Your task to perform on an android device: toggle notifications settings in the gmail app Image 0: 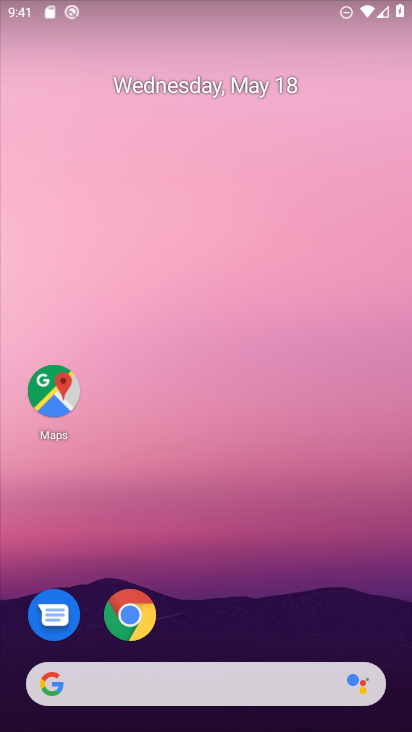
Step 0: drag from (236, 594) to (254, 88)
Your task to perform on an android device: toggle notifications settings in the gmail app Image 1: 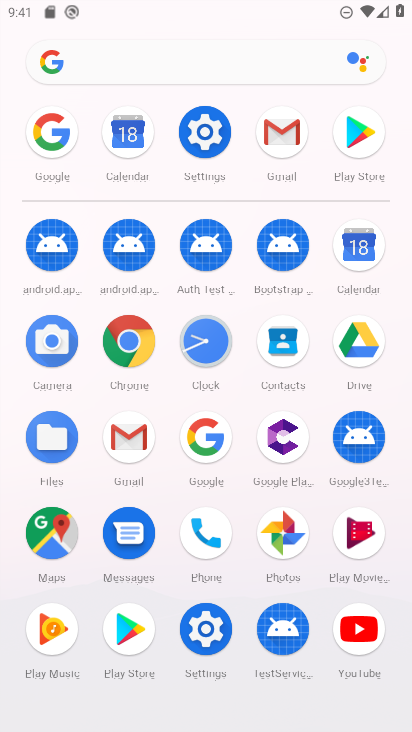
Step 1: click (287, 140)
Your task to perform on an android device: toggle notifications settings in the gmail app Image 2: 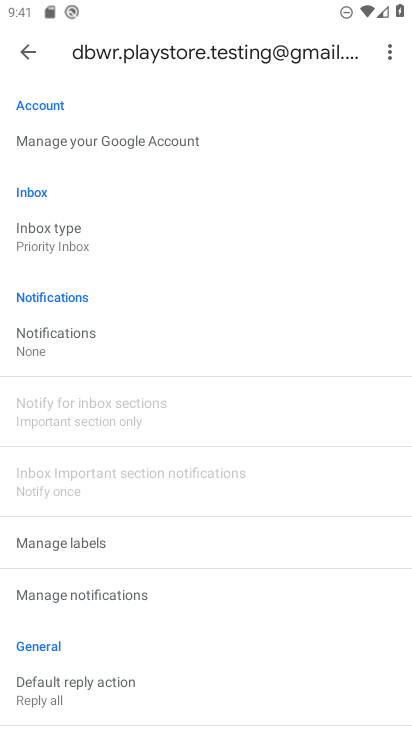
Step 2: click (83, 340)
Your task to perform on an android device: toggle notifications settings in the gmail app Image 3: 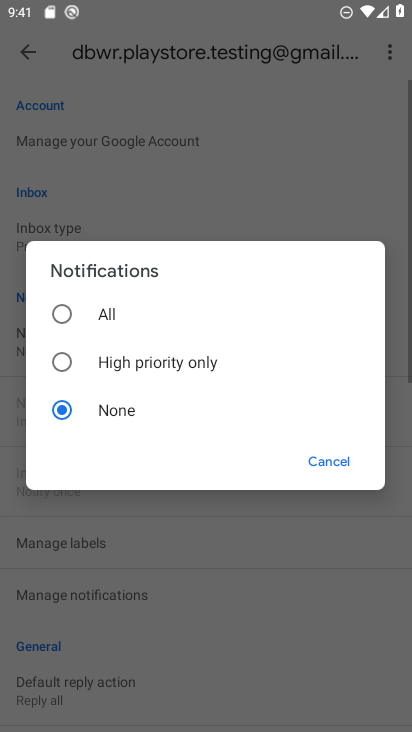
Step 3: click (64, 312)
Your task to perform on an android device: toggle notifications settings in the gmail app Image 4: 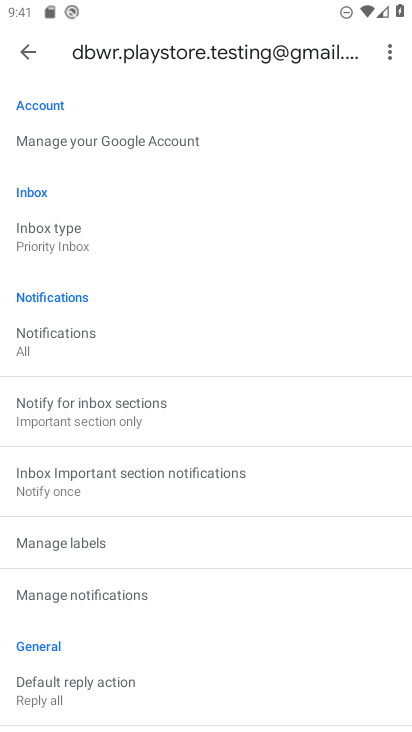
Step 4: task complete